Your task to perform on an android device: Open the web browser Image 0: 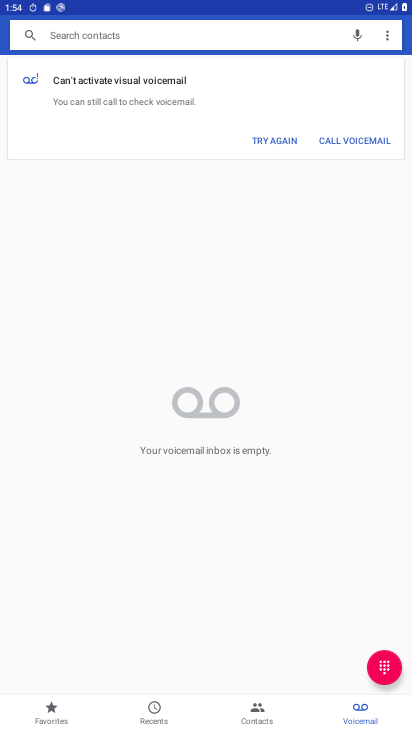
Step 0: press home button
Your task to perform on an android device: Open the web browser Image 1: 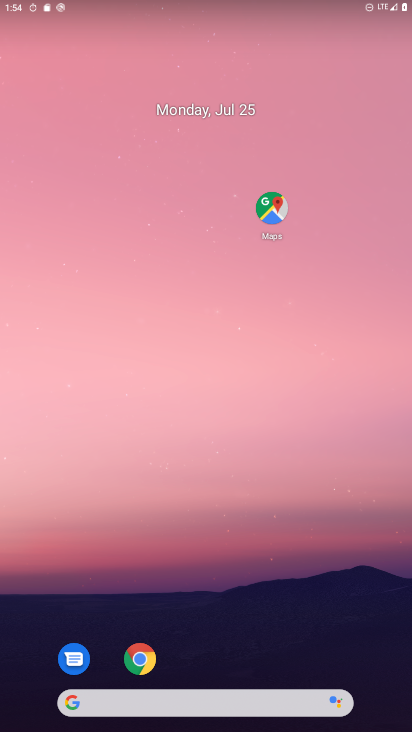
Step 1: task complete